Your task to perform on an android device: Open Chrome and go to settings Image 0: 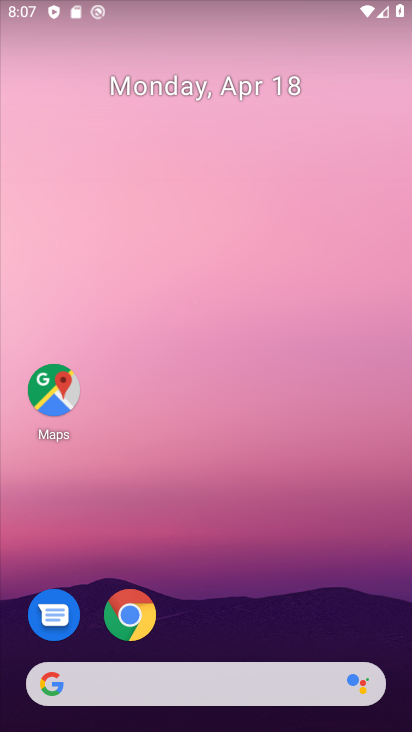
Step 0: click (125, 611)
Your task to perform on an android device: Open Chrome and go to settings Image 1: 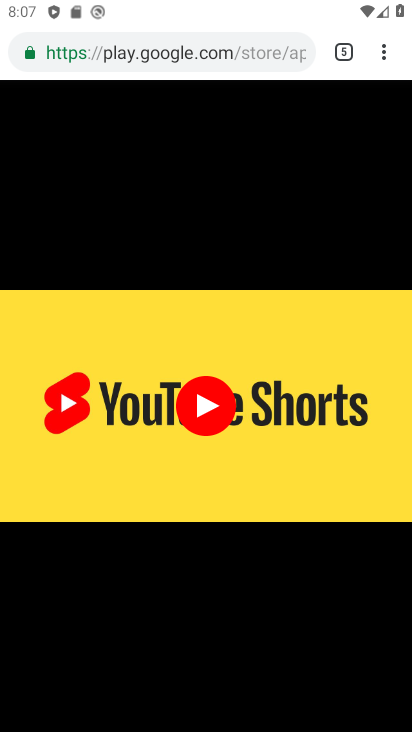
Step 1: click (382, 53)
Your task to perform on an android device: Open Chrome and go to settings Image 2: 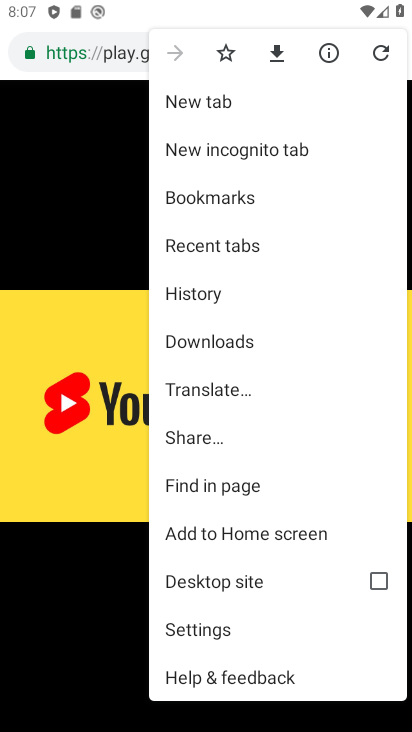
Step 2: click (227, 631)
Your task to perform on an android device: Open Chrome and go to settings Image 3: 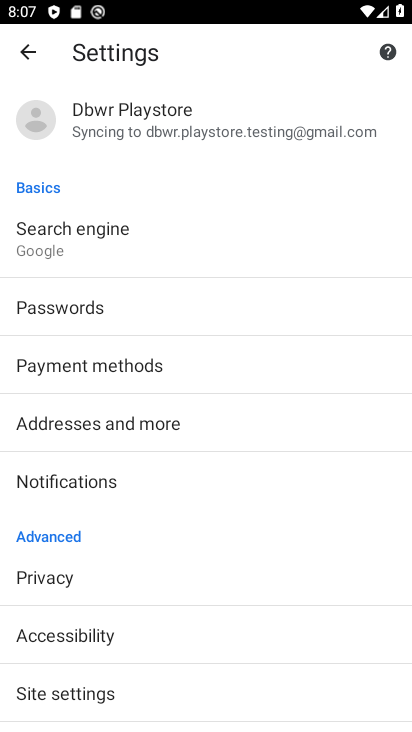
Step 3: task complete